Your task to perform on an android device: Turn off the flashlight Image 0: 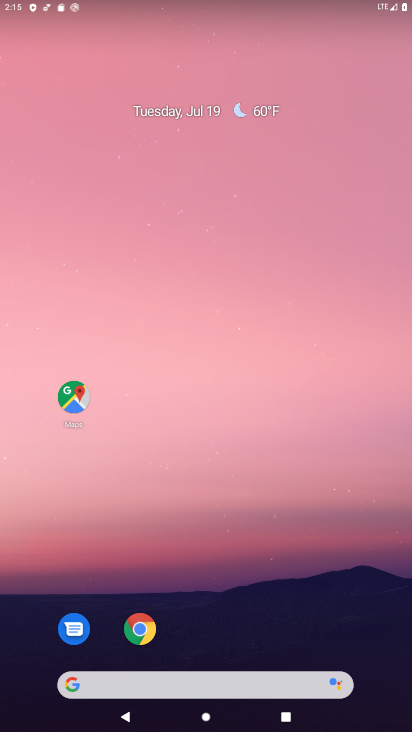
Step 0: drag from (195, 599) to (183, 214)
Your task to perform on an android device: Turn off the flashlight Image 1: 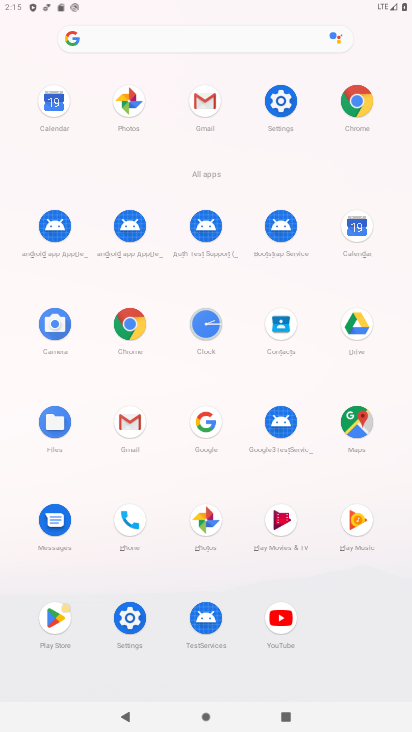
Step 1: click (273, 116)
Your task to perform on an android device: Turn off the flashlight Image 2: 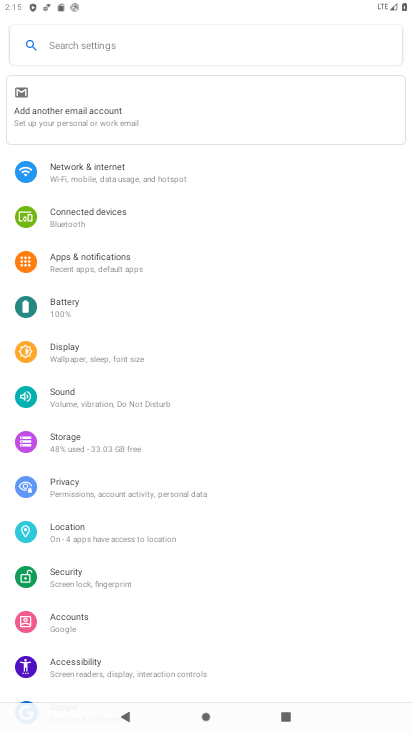
Step 2: task complete